Your task to perform on an android device: change the clock style Image 0: 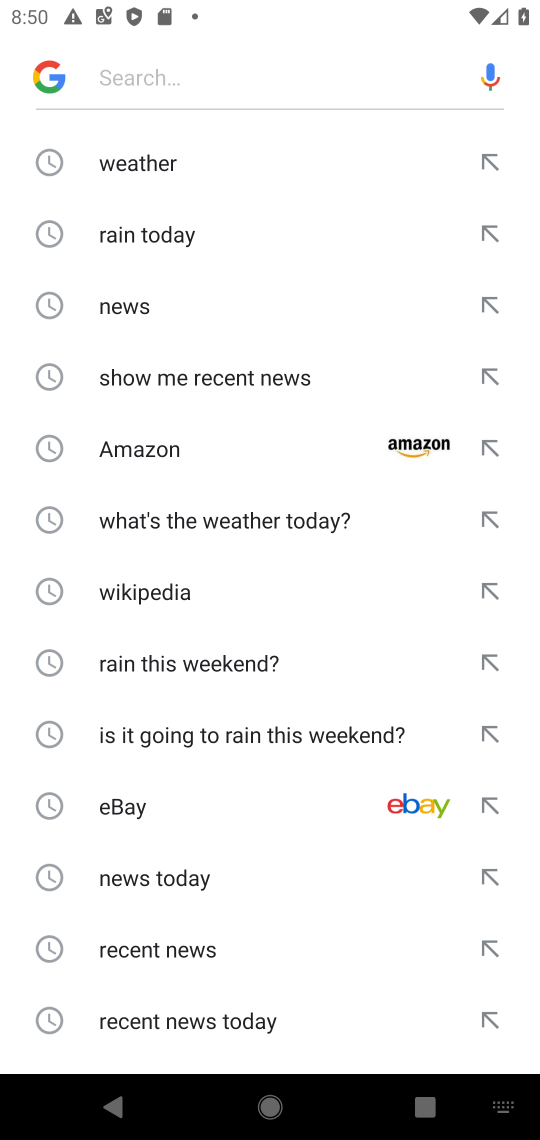
Step 0: press home button
Your task to perform on an android device: change the clock style Image 1: 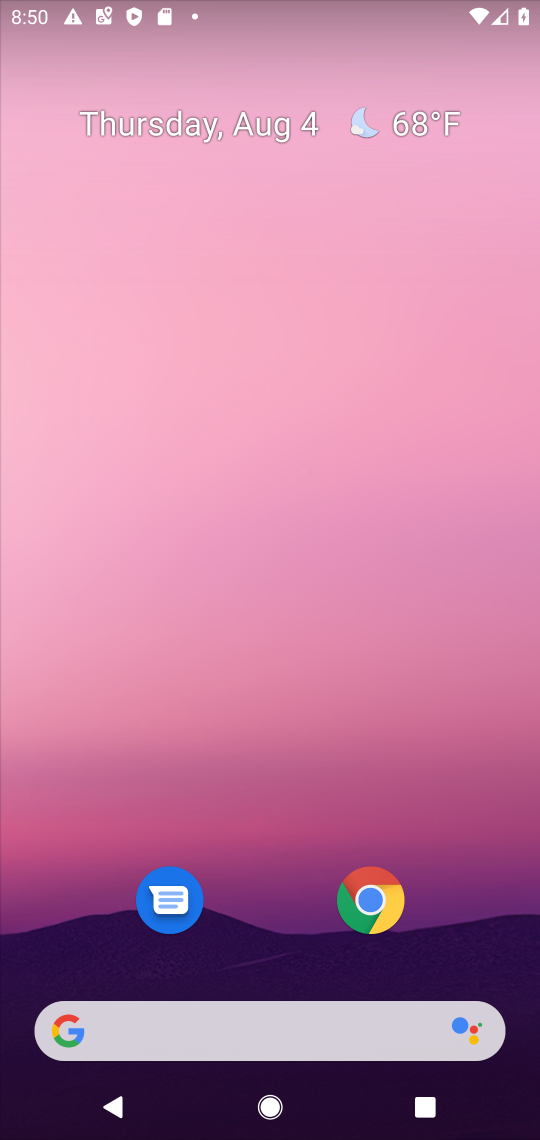
Step 1: click (261, 314)
Your task to perform on an android device: change the clock style Image 2: 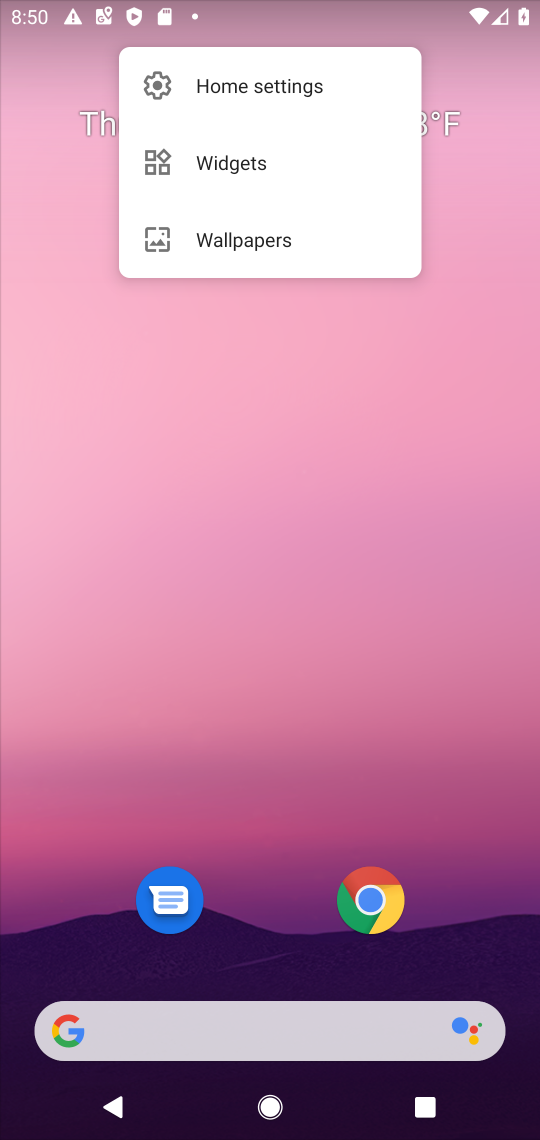
Step 2: click (232, 951)
Your task to perform on an android device: change the clock style Image 3: 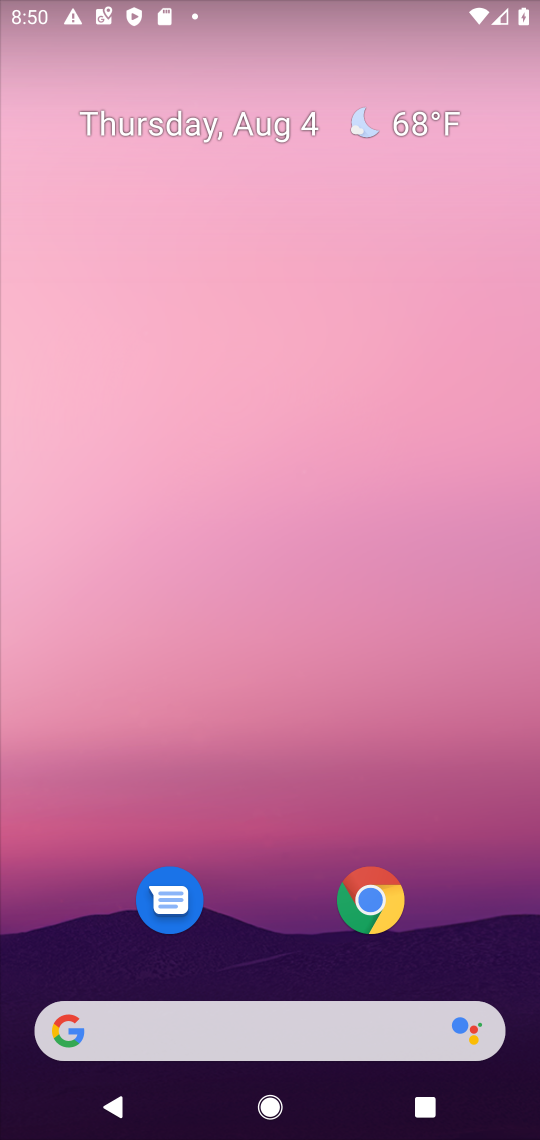
Step 3: drag from (232, 935) to (288, 289)
Your task to perform on an android device: change the clock style Image 4: 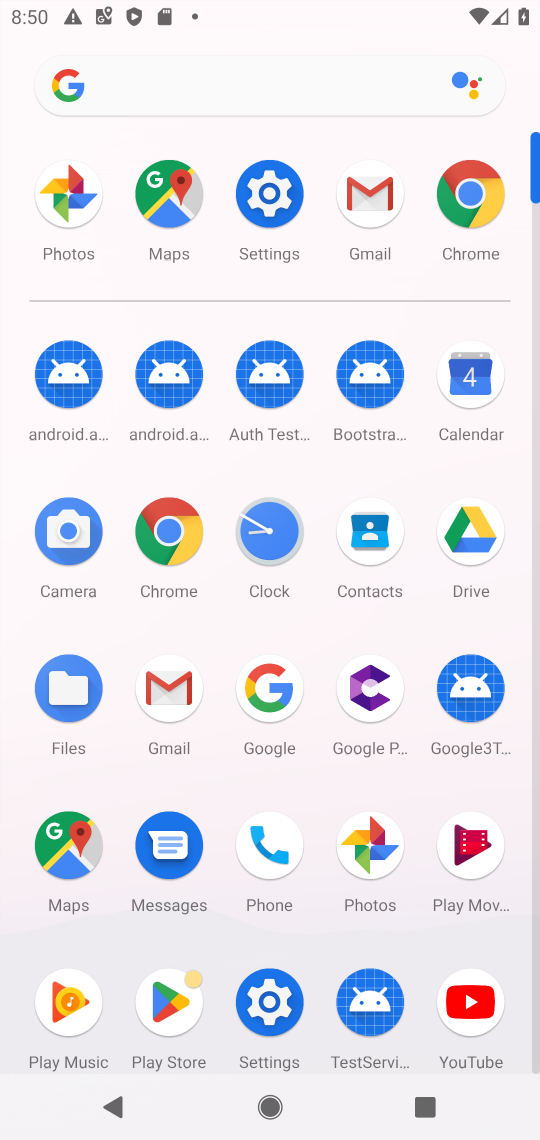
Step 4: click (274, 547)
Your task to perform on an android device: change the clock style Image 5: 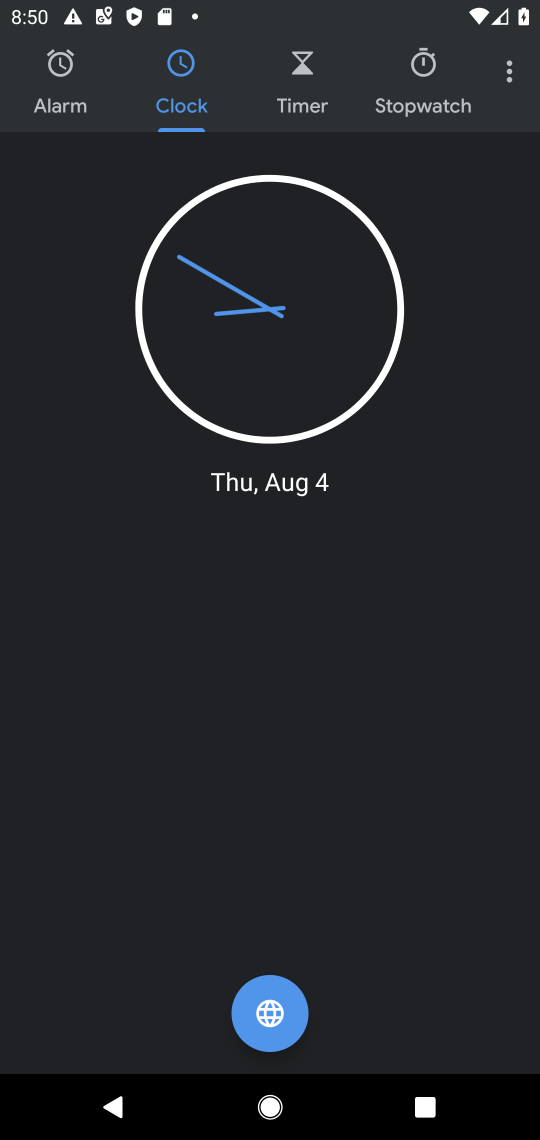
Step 5: click (510, 75)
Your task to perform on an android device: change the clock style Image 6: 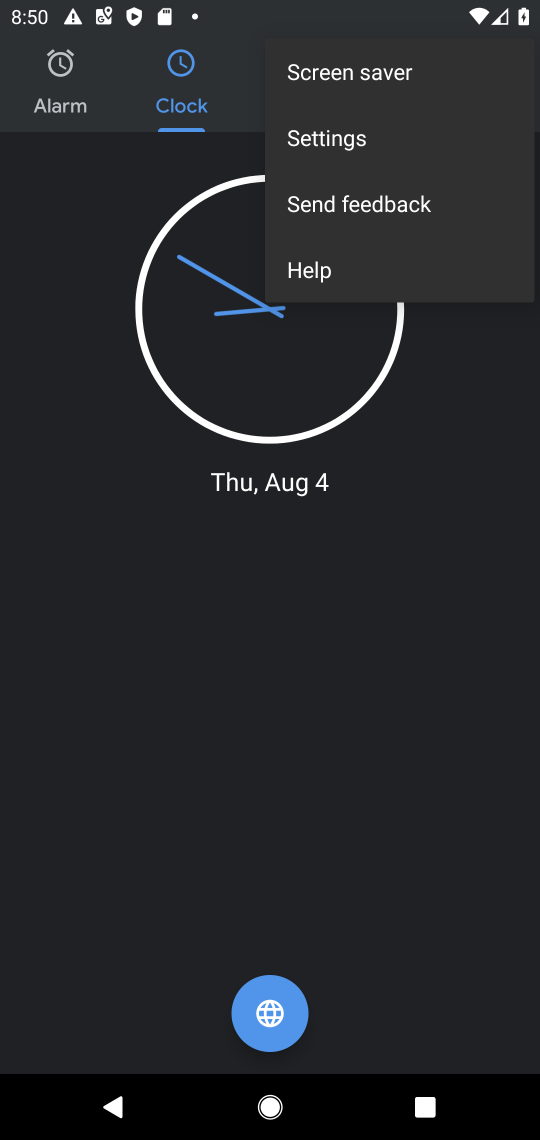
Step 6: click (342, 143)
Your task to perform on an android device: change the clock style Image 7: 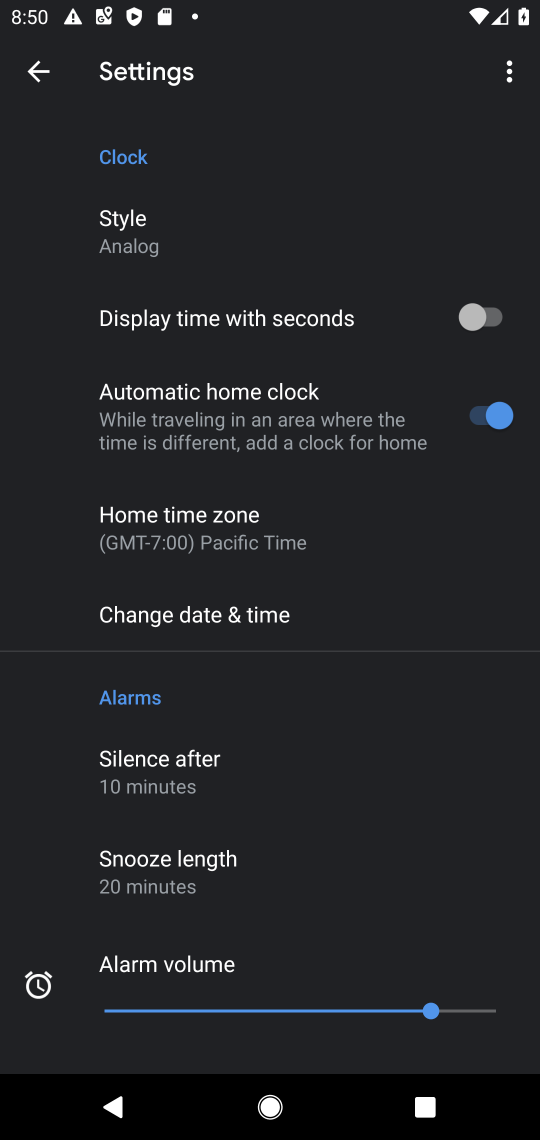
Step 7: click (149, 242)
Your task to perform on an android device: change the clock style Image 8: 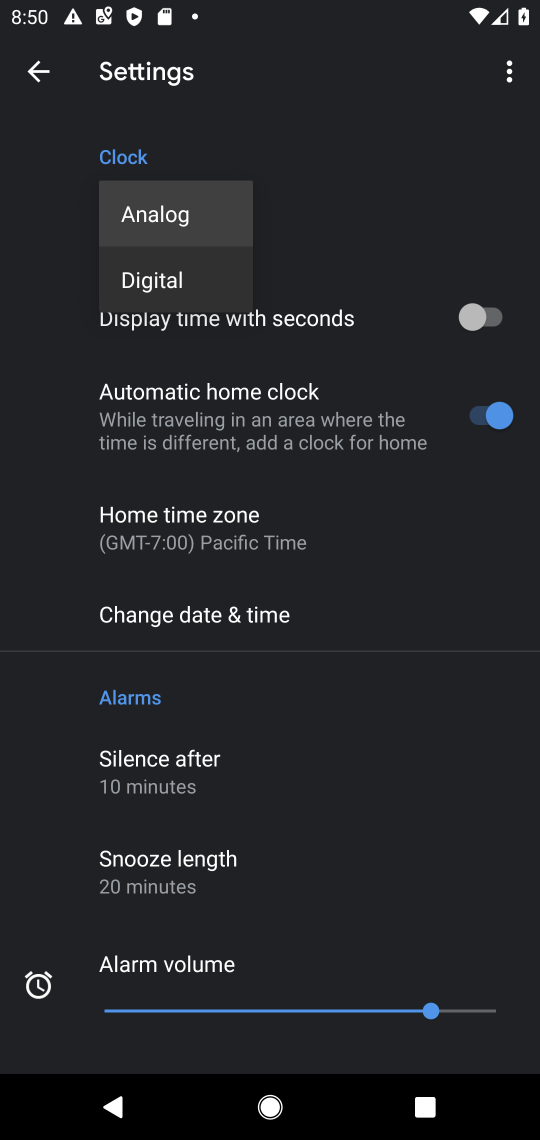
Step 8: click (148, 290)
Your task to perform on an android device: change the clock style Image 9: 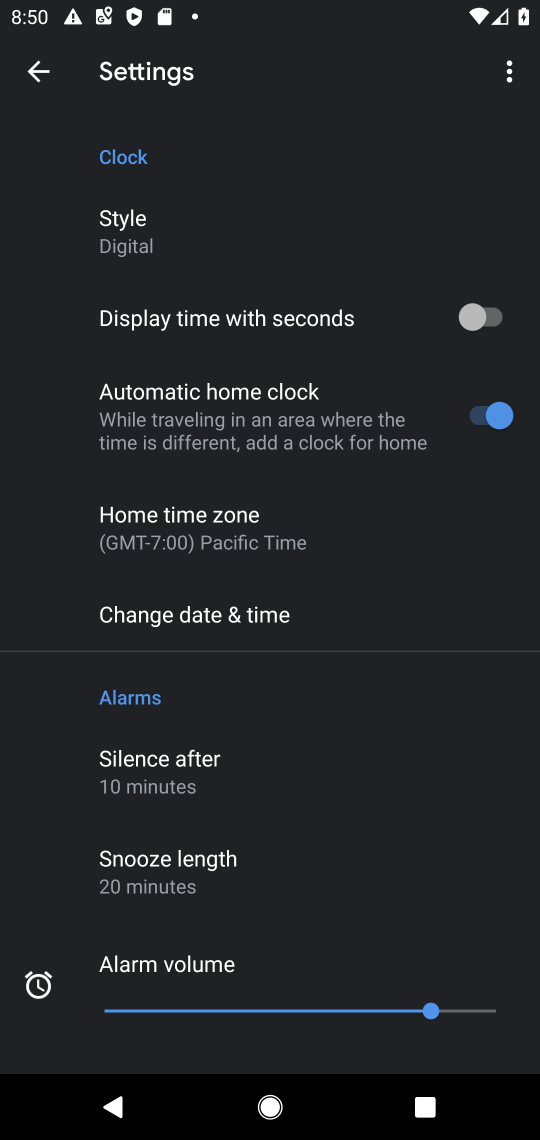
Step 9: task complete